Your task to perform on an android device: Open notification settings Image 0: 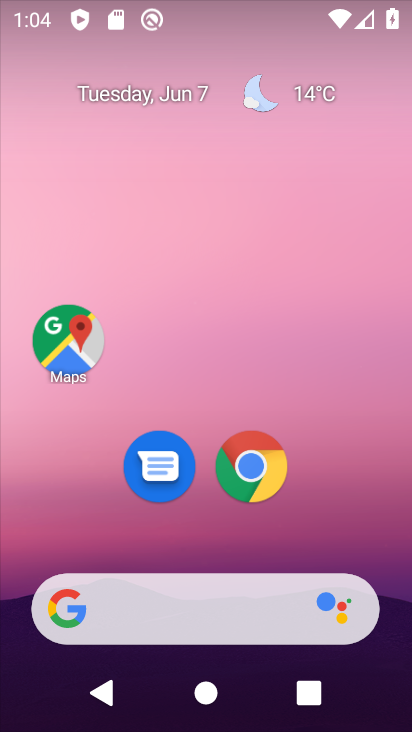
Step 0: drag from (326, 519) to (339, 76)
Your task to perform on an android device: Open notification settings Image 1: 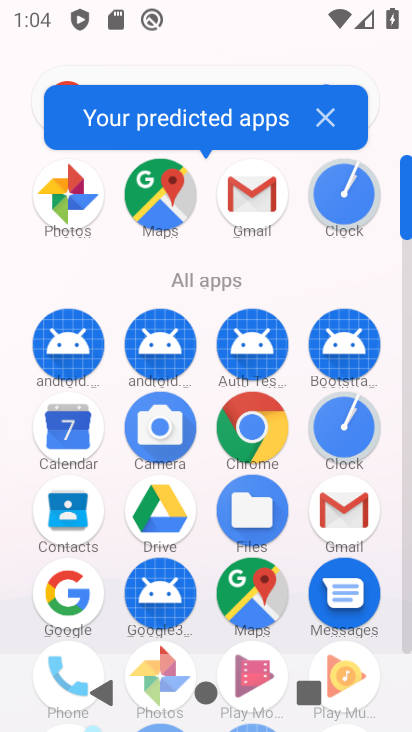
Step 1: drag from (249, 524) to (237, 195)
Your task to perform on an android device: Open notification settings Image 2: 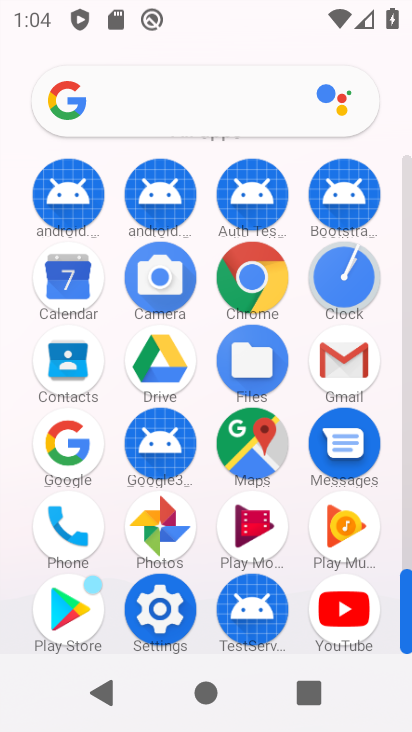
Step 2: click (166, 606)
Your task to perform on an android device: Open notification settings Image 3: 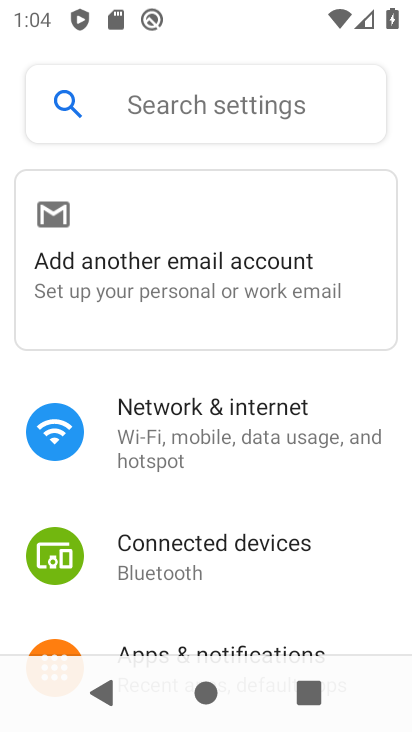
Step 3: click (229, 636)
Your task to perform on an android device: Open notification settings Image 4: 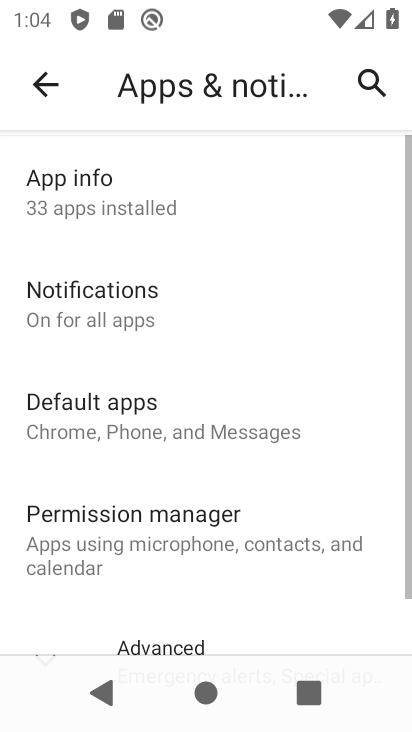
Step 4: task complete